Your task to perform on an android device: Show the shopping cart on costco.com. Search for "macbook pro" on costco.com, select the first entry, and add it to the cart. Image 0: 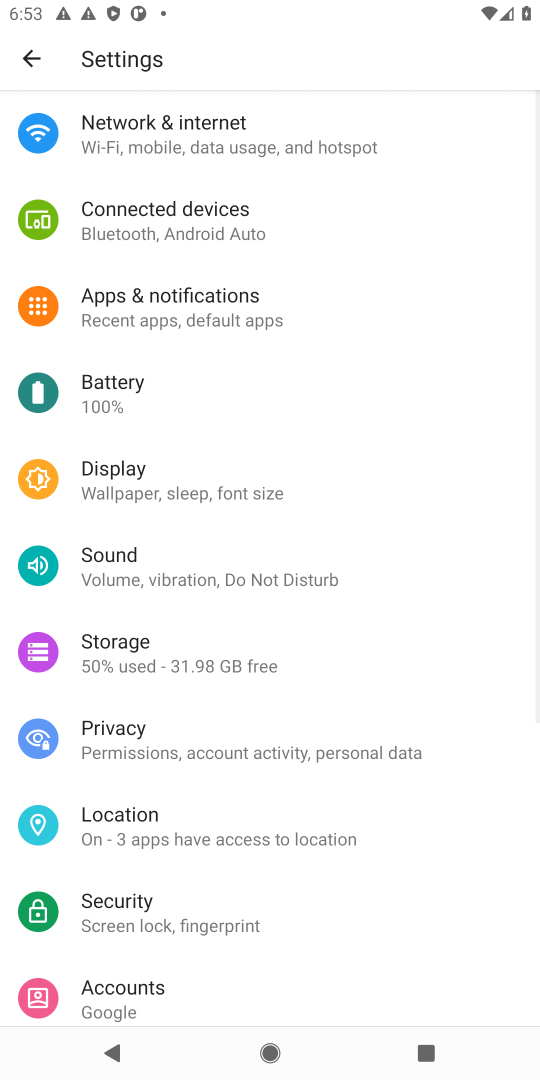
Step 0: press home button
Your task to perform on an android device: Show the shopping cart on costco.com. Search for "macbook pro" on costco.com, select the first entry, and add it to the cart. Image 1: 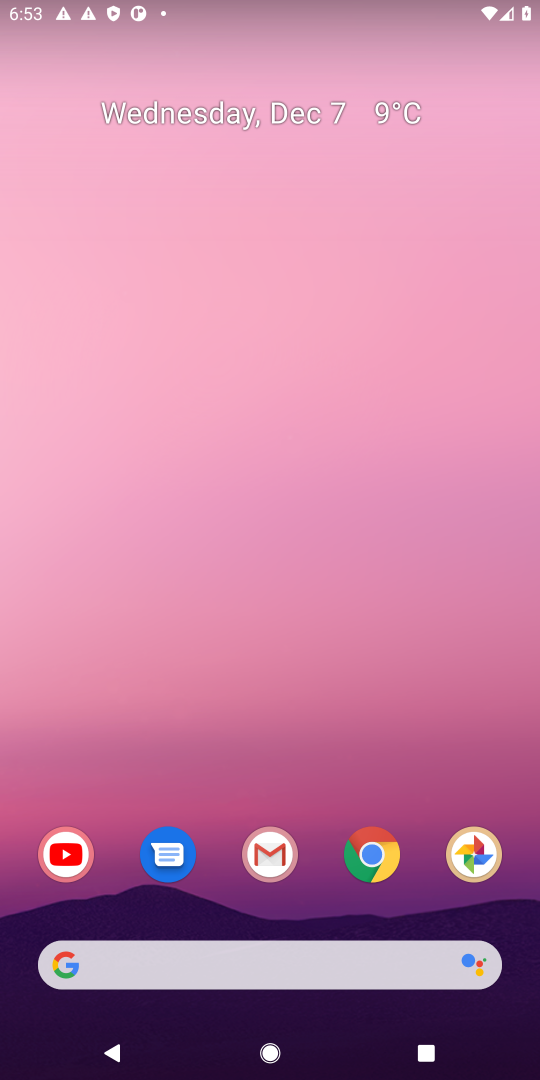
Step 1: click (297, 959)
Your task to perform on an android device: Show the shopping cart on costco.com. Search for "macbook pro" on costco.com, select the first entry, and add it to the cart. Image 2: 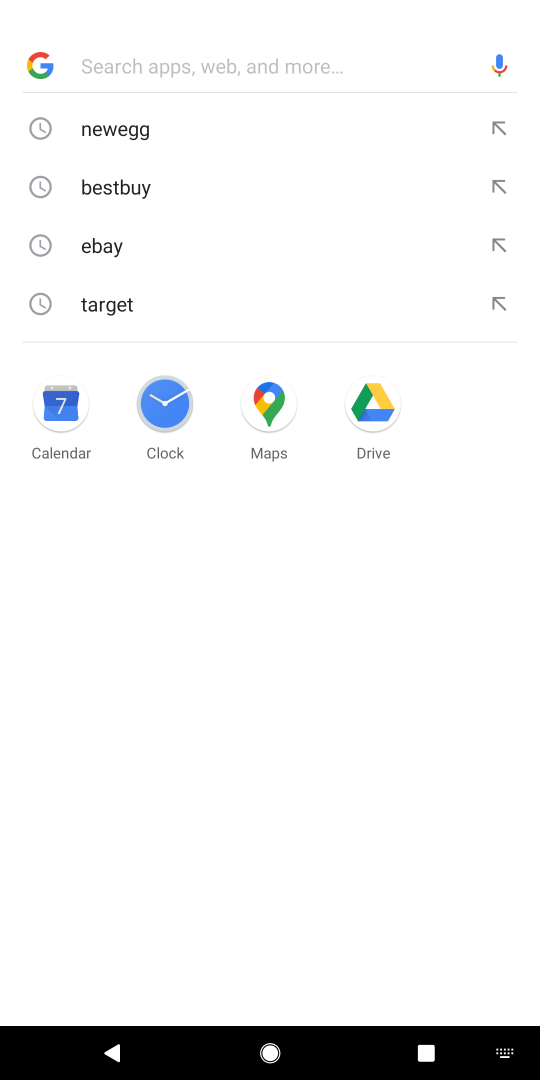
Step 2: type "costco.com"
Your task to perform on an android device: Show the shopping cart on costco.com. Search for "macbook pro" on costco.com, select the first entry, and add it to the cart. Image 3: 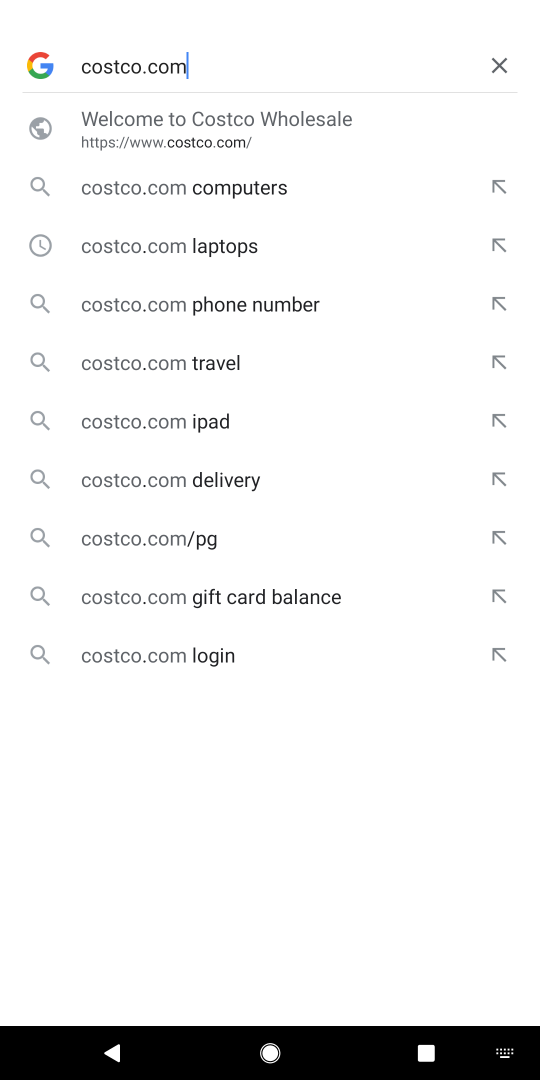
Step 3: click (165, 130)
Your task to perform on an android device: Show the shopping cart on costco.com. Search for "macbook pro" on costco.com, select the first entry, and add it to the cart. Image 4: 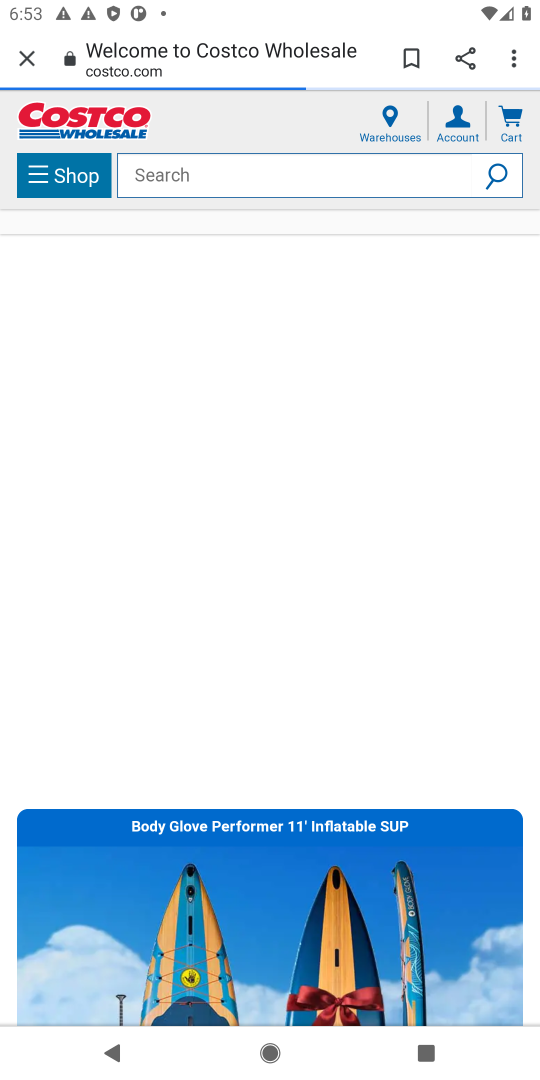
Step 4: click (202, 182)
Your task to perform on an android device: Show the shopping cart on costco.com. Search for "macbook pro" on costco.com, select the first entry, and add it to the cart. Image 5: 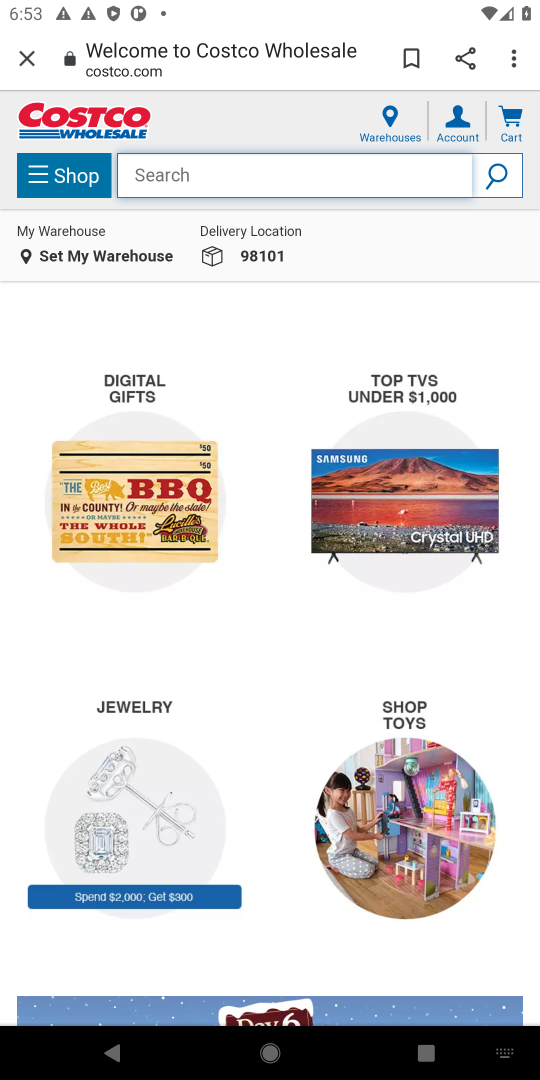
Step 5: type "macbook pro"
Your task to perform on an android device: Show the shopping cart on costco.com. Search for "macbook pro" on costco.com, select the first entry, and add it to the cart. Image 6: 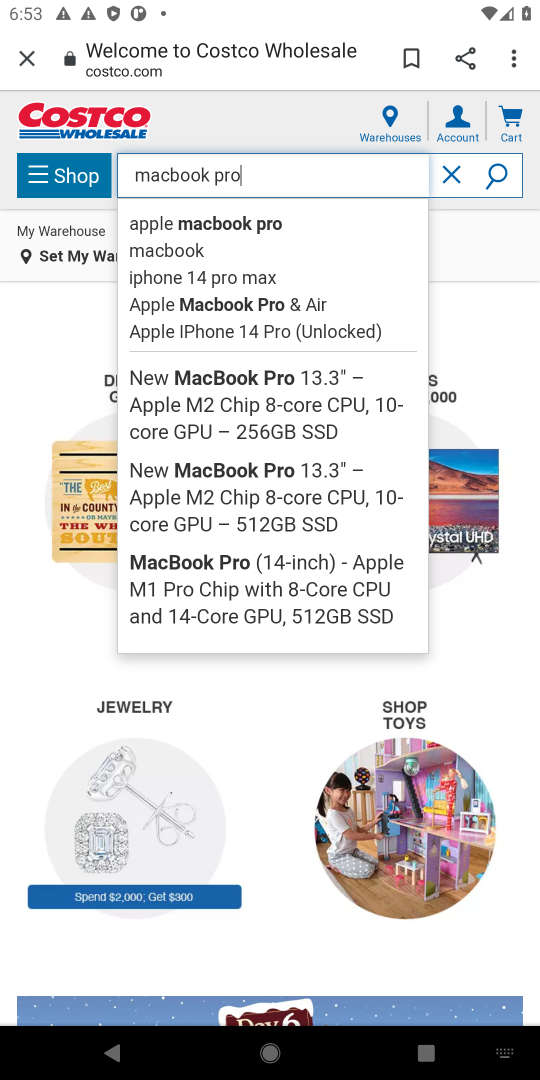
Step 6: click (287, 219)
Your task to perform on an android device: Show the shopping cart on costco.com. Search for "macbook pro" on costco.com, select the first entry, and add it to the cart. Image 7: 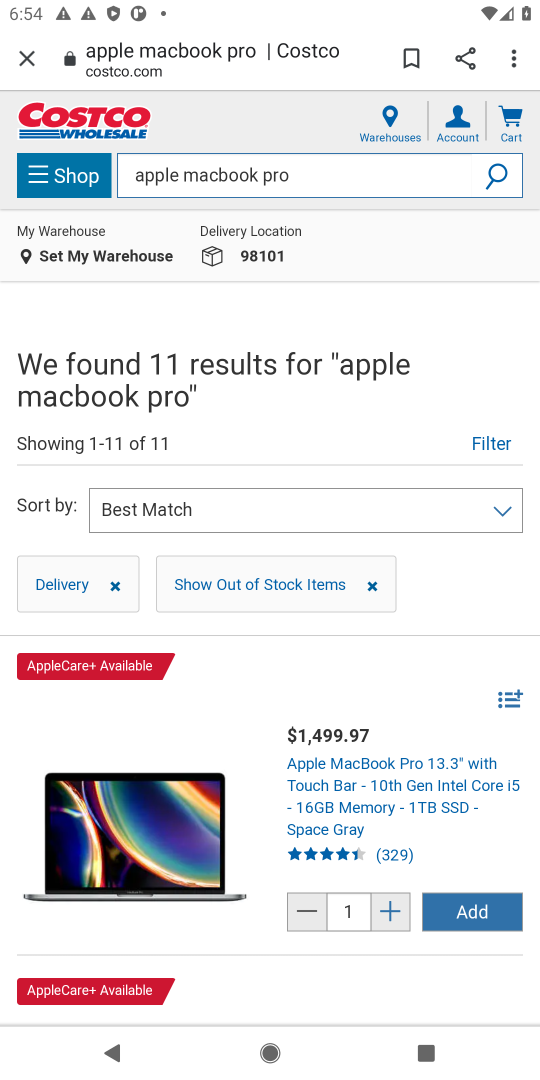
Step 7: click (462, 924)
Your task to perform on an android device: Show the shopping cart on costco.com. Search for "macbook pro" on costco.com, select the first entry, and add it to the cart. Image 8: 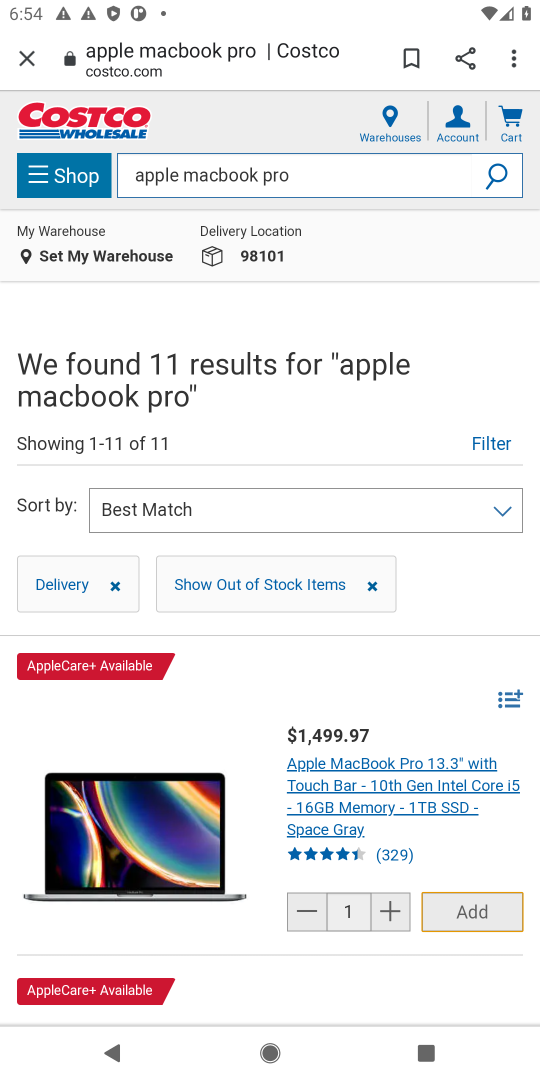
Step 8: task complete